Your task to perform on an android device: What's the weather? Image 0: 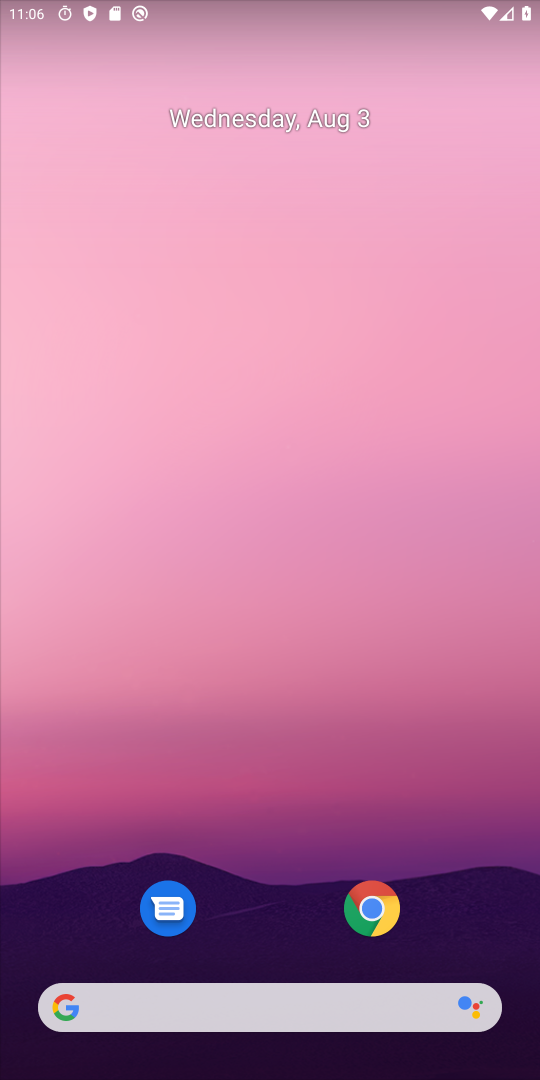
Step 0: press home button
Your task to perform on an android device: What's the weather? Image 1: 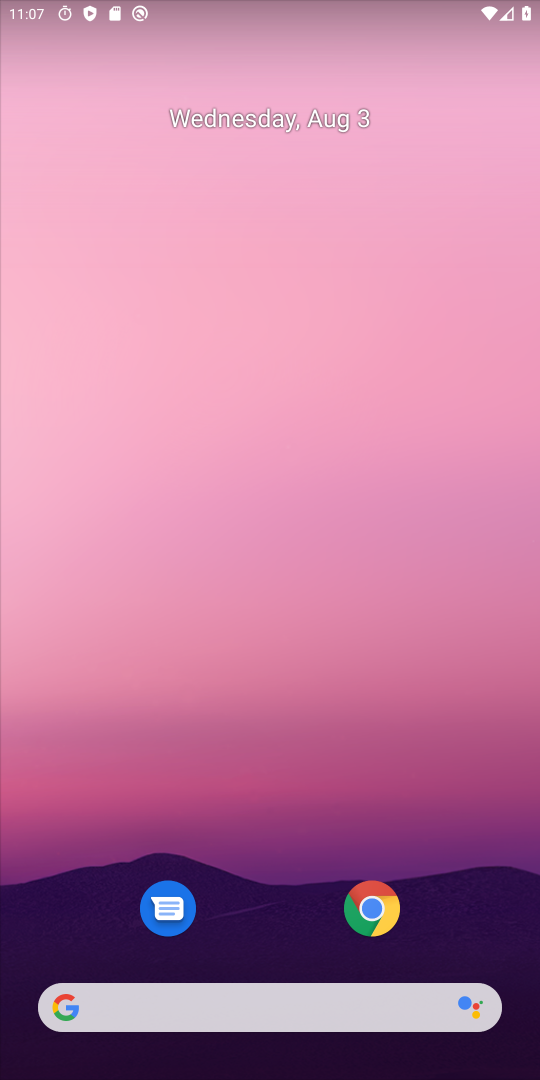
Step 1: click (245, 1014)
Your task to perform on an android device: What's the weather? Image 2: 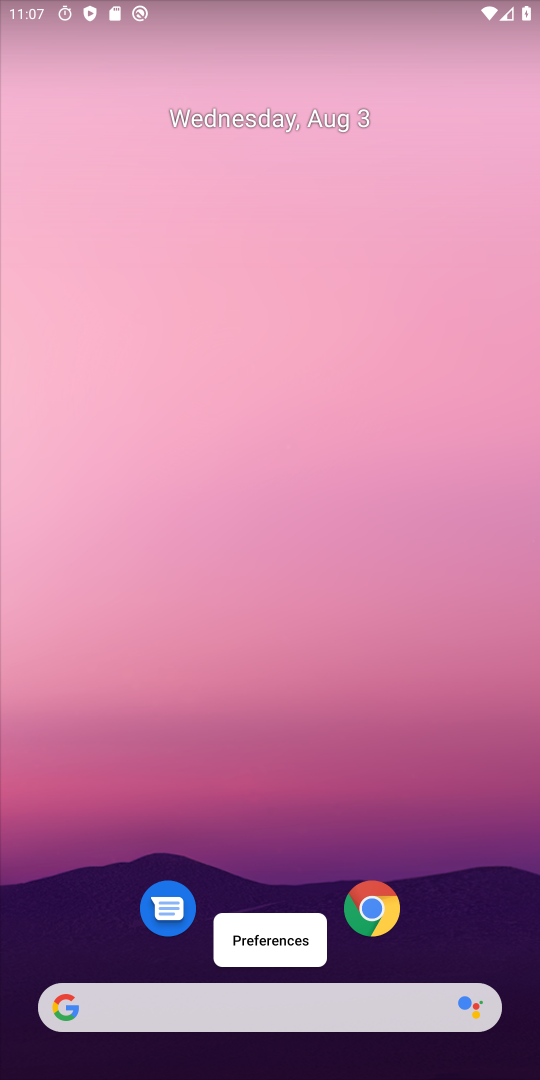
Step 2: click (398, 581)
Your task to perform on an android device: What's the weather? Image 3: 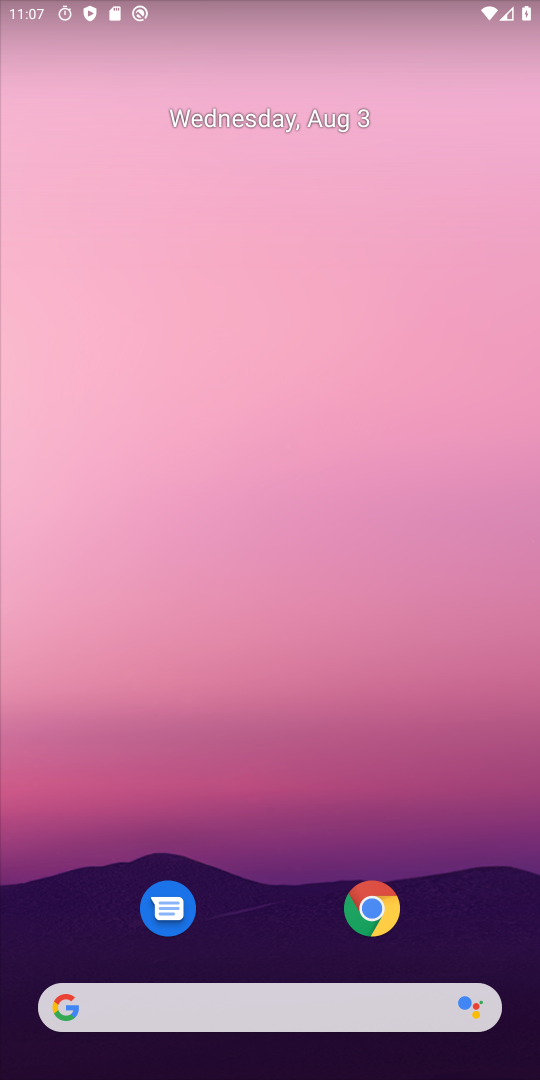
Step 3: click (220, 1015)
Your task to perform on an android device: What's the weather? Image 4: 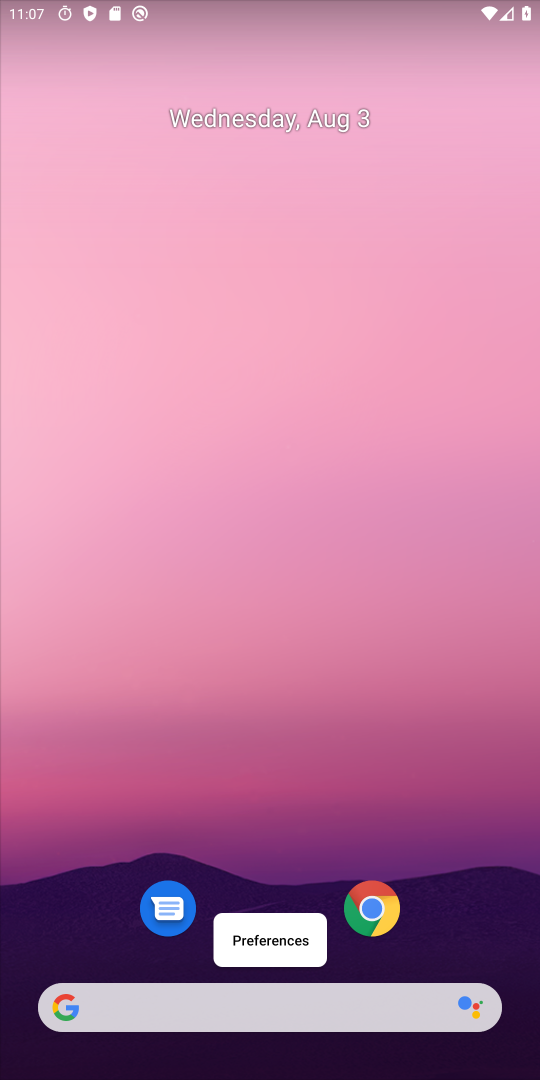
Step 4: click (122, 1018)
Your task to perform on an android device: What's the weather? Image 5: 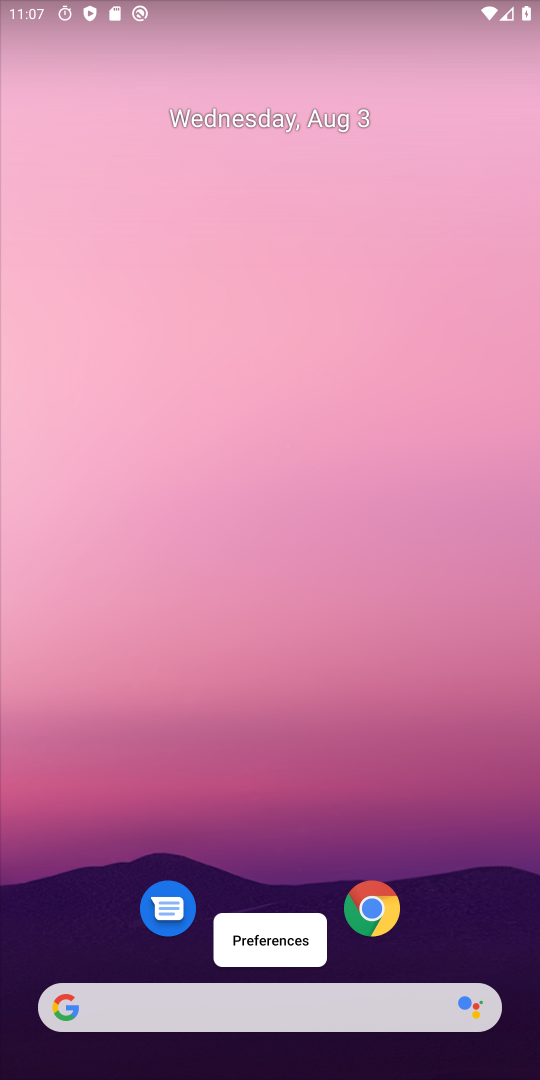
Step 5: click (360, 585)
Your task to perform on an android device: What's the weather? Image 6: 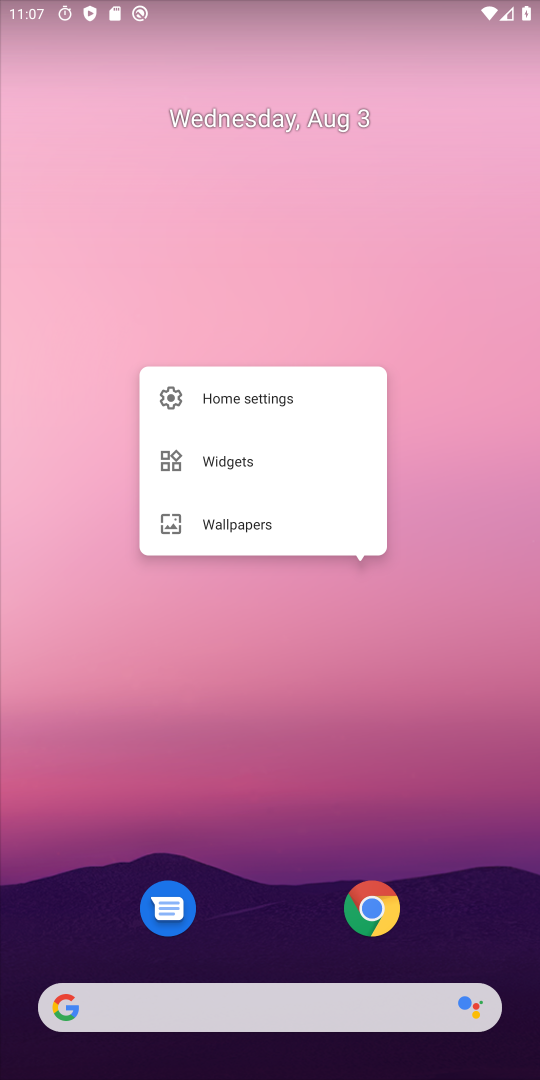
Step 6: click (374, 758)
Your task to perform on an android device: What's the weather? Image 7: 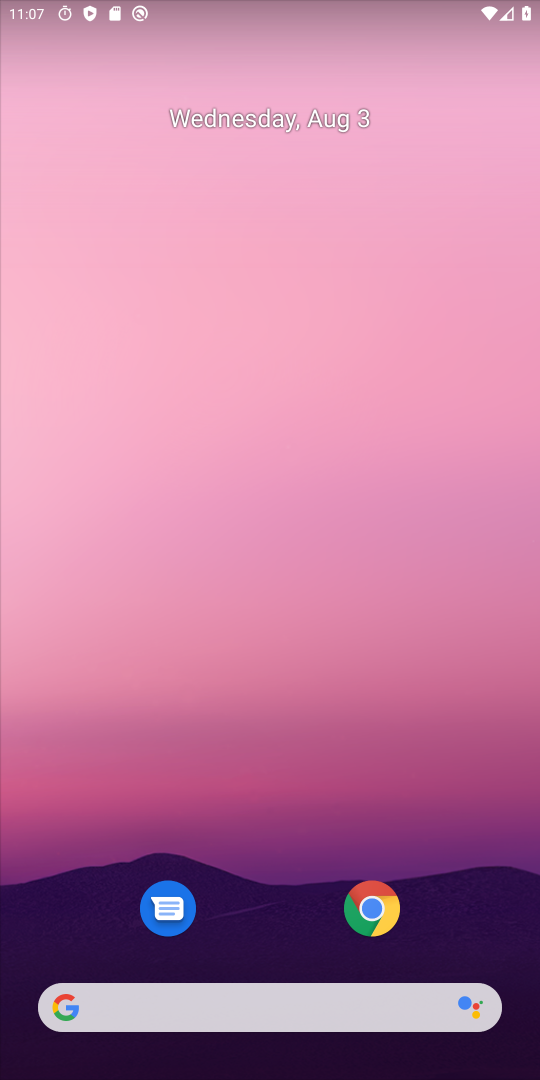
Step 7: drag from (252, 1032) to (416, 422)
Your task to perform on an android device: What's the weather? Image 8: 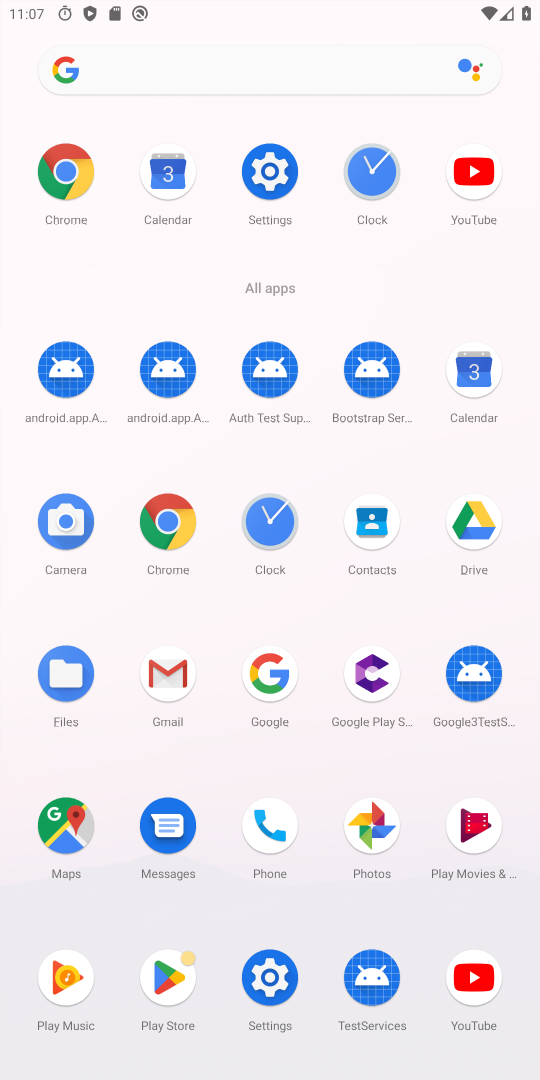
Step 8: click (191, 87)
Your task to perform on an android device: What's the weather? Image 9: 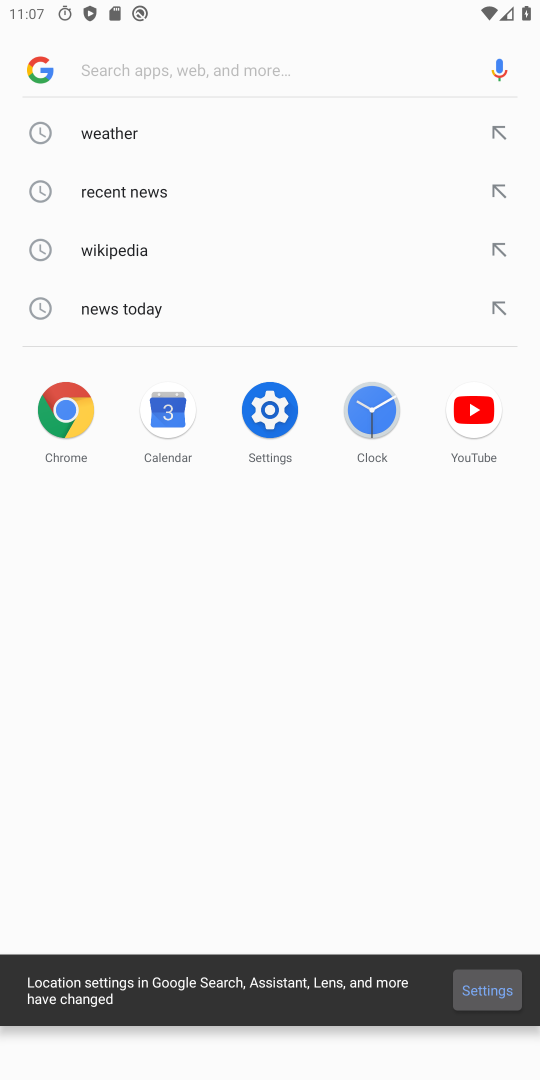
Step 9: click (162, 125)
Your task to perform on an android device: What's the weather? Image 10: 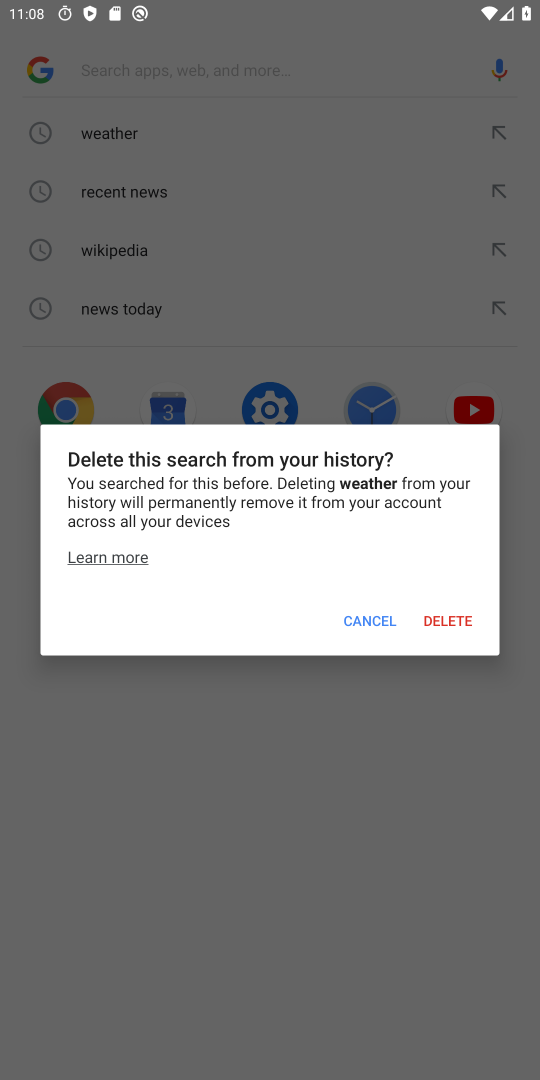
Step 10: click (363, 619)
Your task to perform on an android device: What's the weather? Image 11: 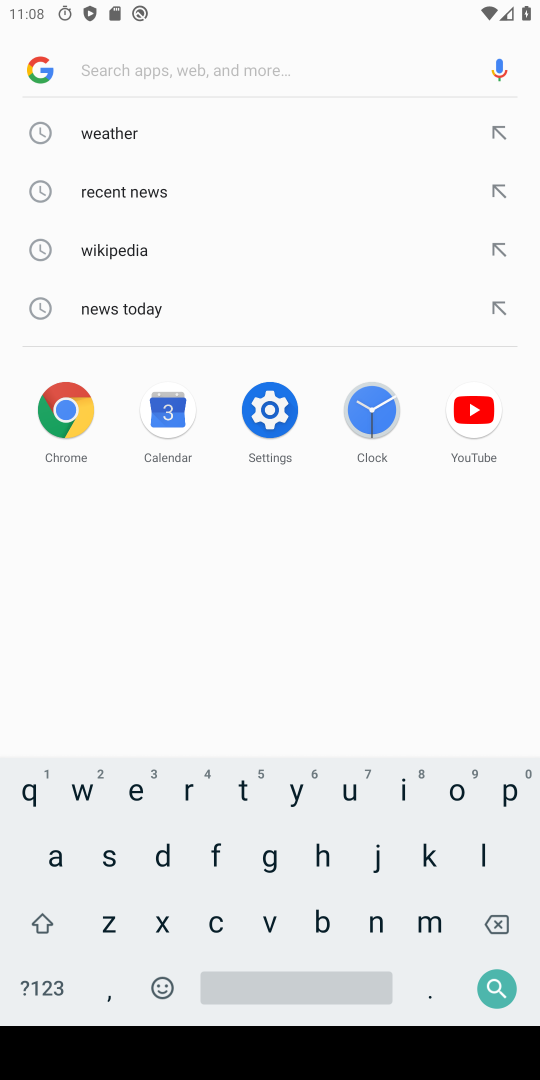
Step 11: click (126, 140)
Your task to perform on an android device: What's the weather? Image 12: 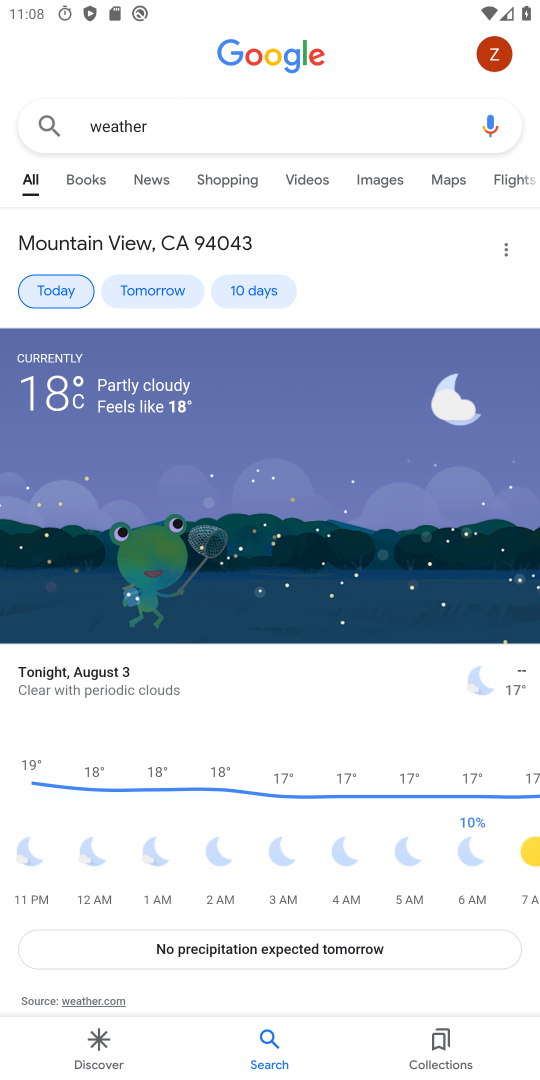
Step 12: task complete